Your task to perform on an android device: clear history in the chrome app Image 0: 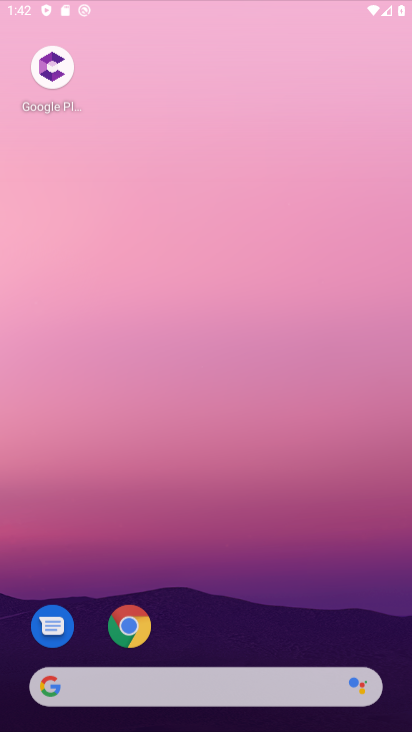
Step 0: click (187, 272)
Your task to perform on an android device: clear history in the chrome app Image 1: 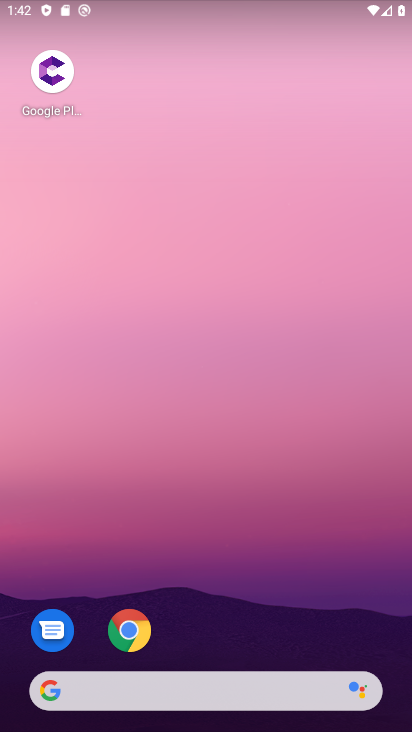
Step 1: click (140, 629)
Your task to perform on an android device: clear history in the chrome app Image 2: 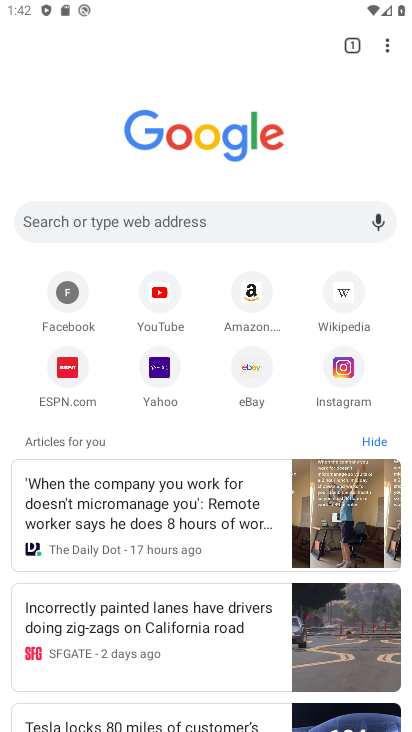
Step 2: click (393, 46)
Your task to perform on an android device: clear history in the chrome app Image 3: 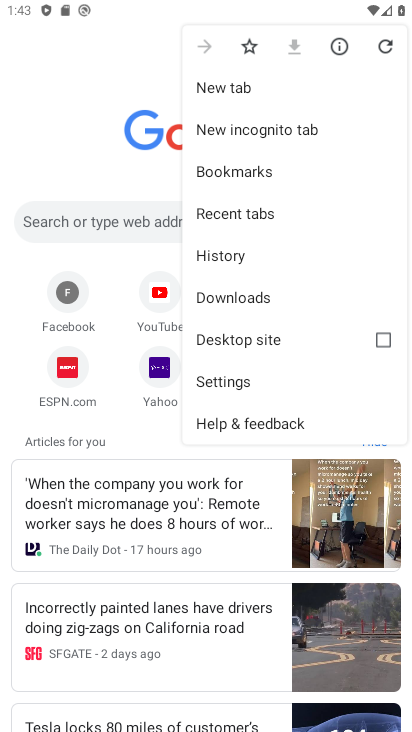
Step 3: click (267, 252)
Your task to perform on an android device: clear history in the chrome app Image 4: 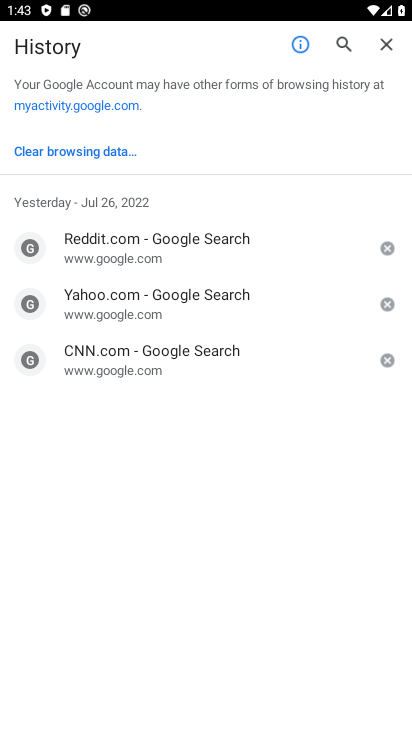
Step 4: click (85, 157)
Your task to perform on an android device: clear history in the chrome app Image 5: 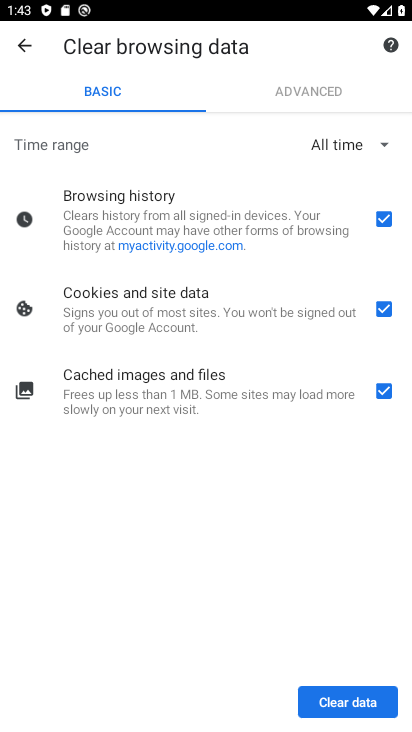
Step 5: click (377, 707)
Your task to perform on an android device: clear history in the chrome app Image 6: 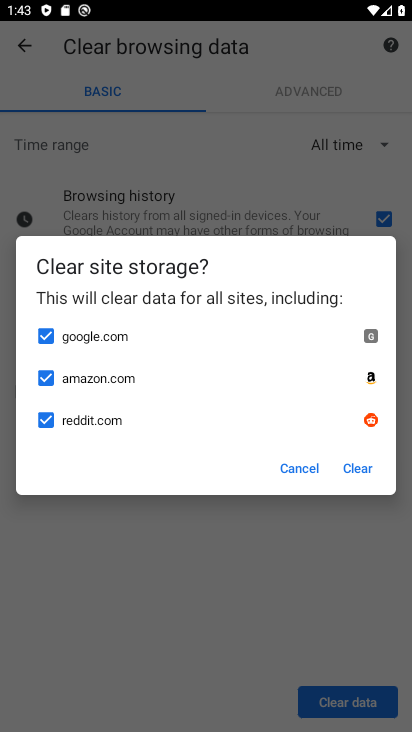
Step 6: click (369, 465)
Your task to perform on an android device: clear history in the chrome app Image 7: 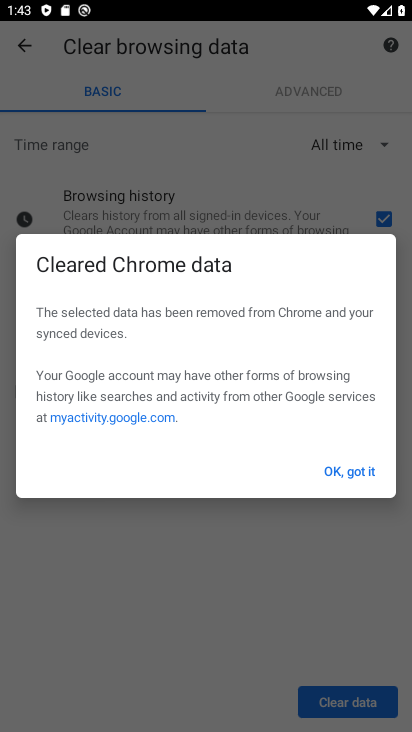
Step 7: click (350, 473)
Your task to perform on an android device: clear history in the chrome app Image 8: 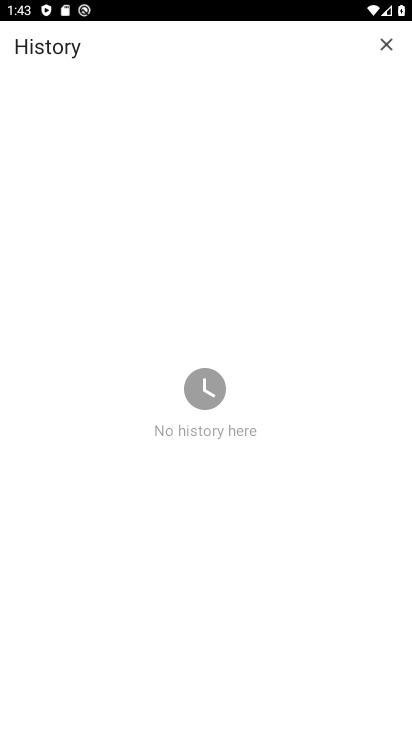
Step 8: task complete